Your task to perform on an android device: open a bookmark in the chrome app Image 0: 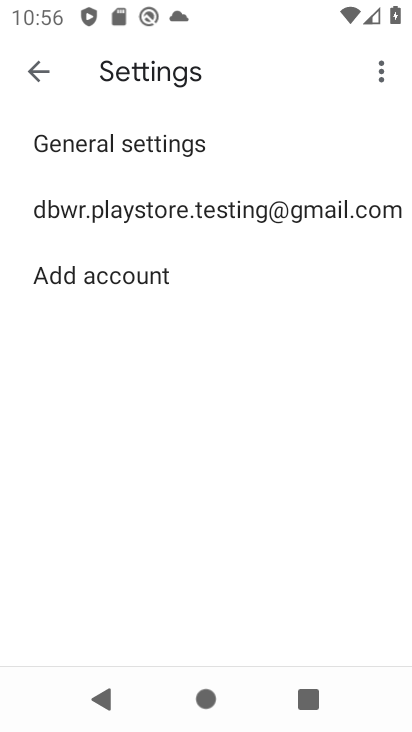
Step 0: press home button
Your task to perform on an android device: open a bookmark in the chrome app Image 1: 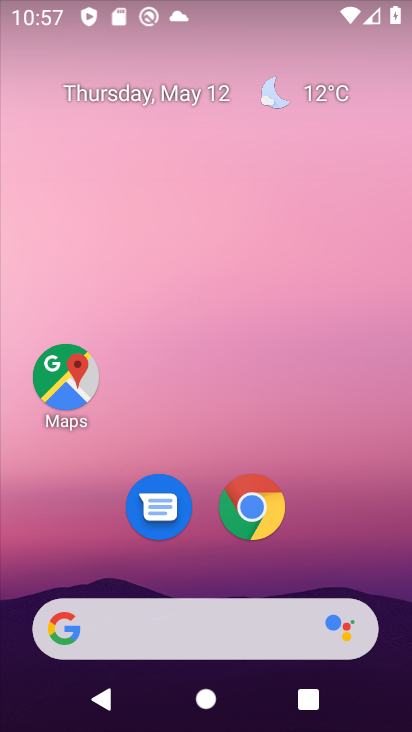
Step 1: drag from (274, 542) to (338, 29)
Your task to perform on an android device: open a bookmark in the chrome app Image 2: 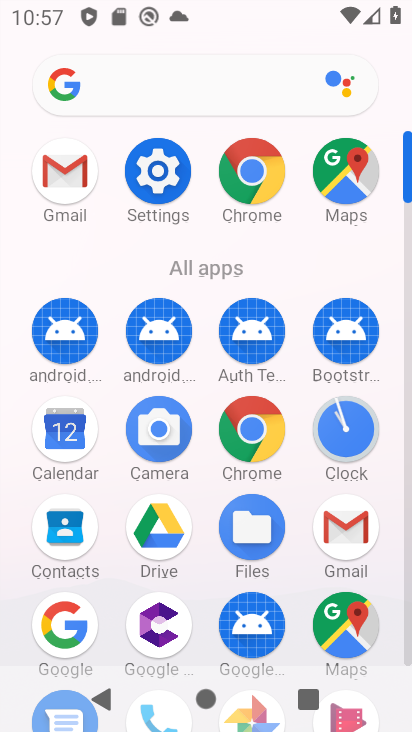
Step 2: click (247, 405)
Your task to perform on an android device: open a bookmark in the chrome app Image 3: 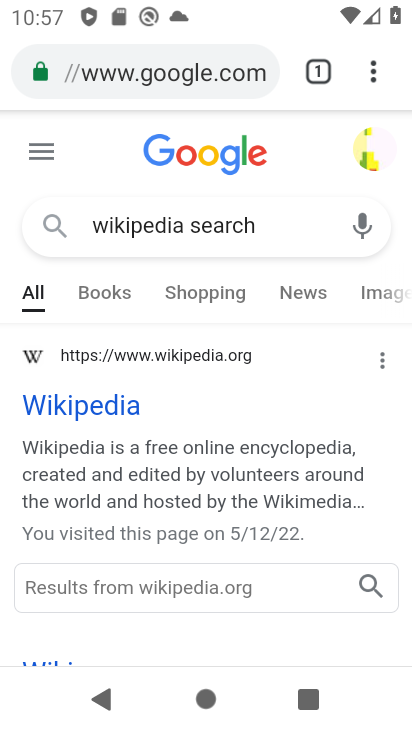
Step 3: click (370, 73)
Your task to perform on an android device: open a bookmark in the chrome app Image 4: 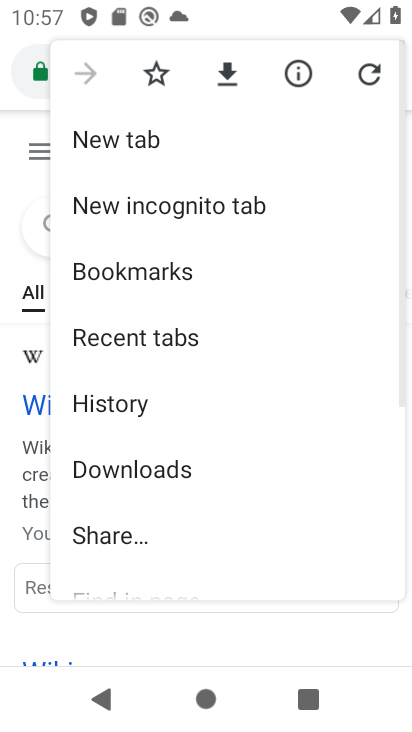
Step 4: click (140, 268)
Your task to perform on an android device: open a bookmark in the chrome app Image 5: 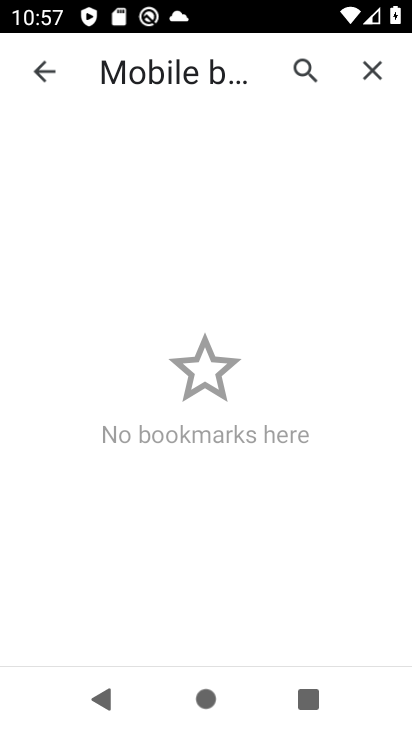
Step 5: task complete